Your task to perform on an android device: turn on data saver in the chrome app Image 0: 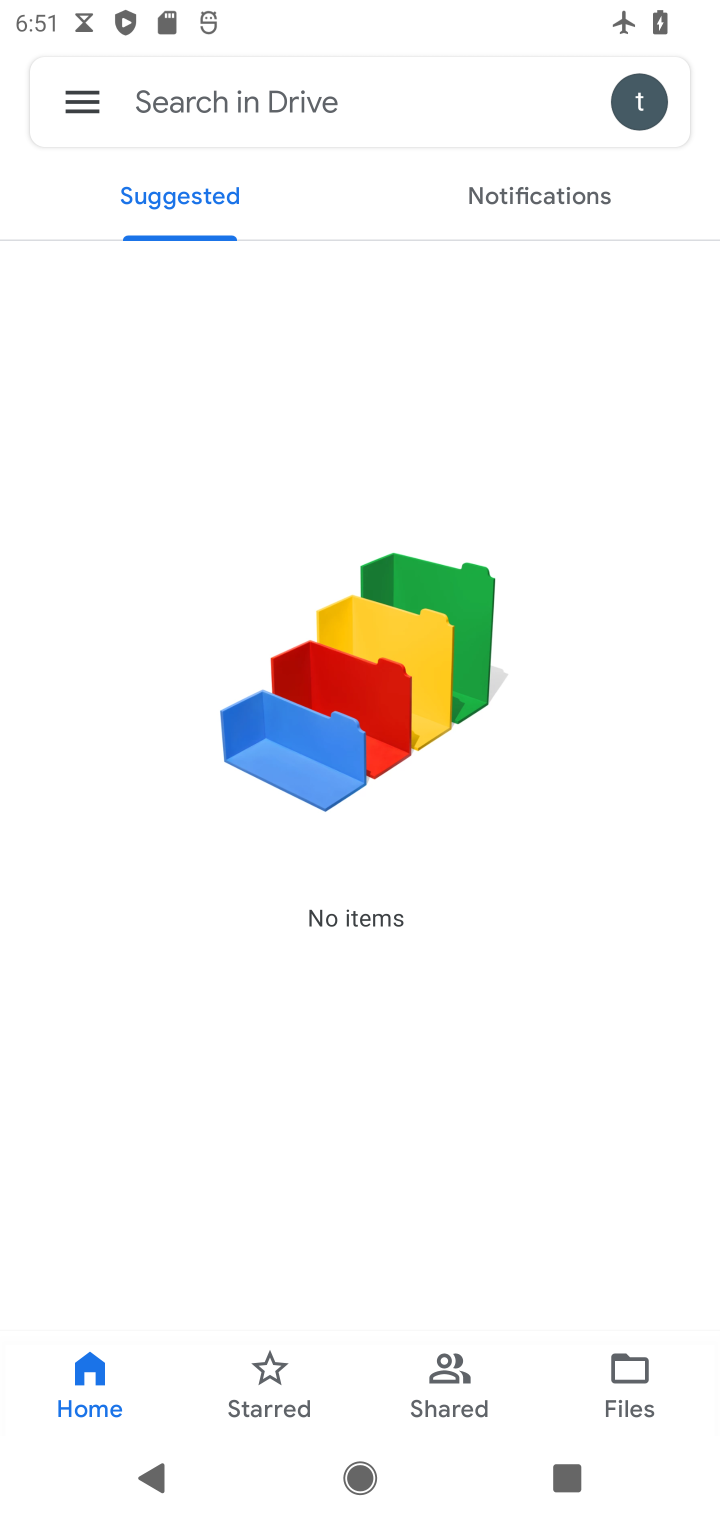
Step 0: press home button
Your task to perform on an android device: turn on data saver in the chrome app Image 1: 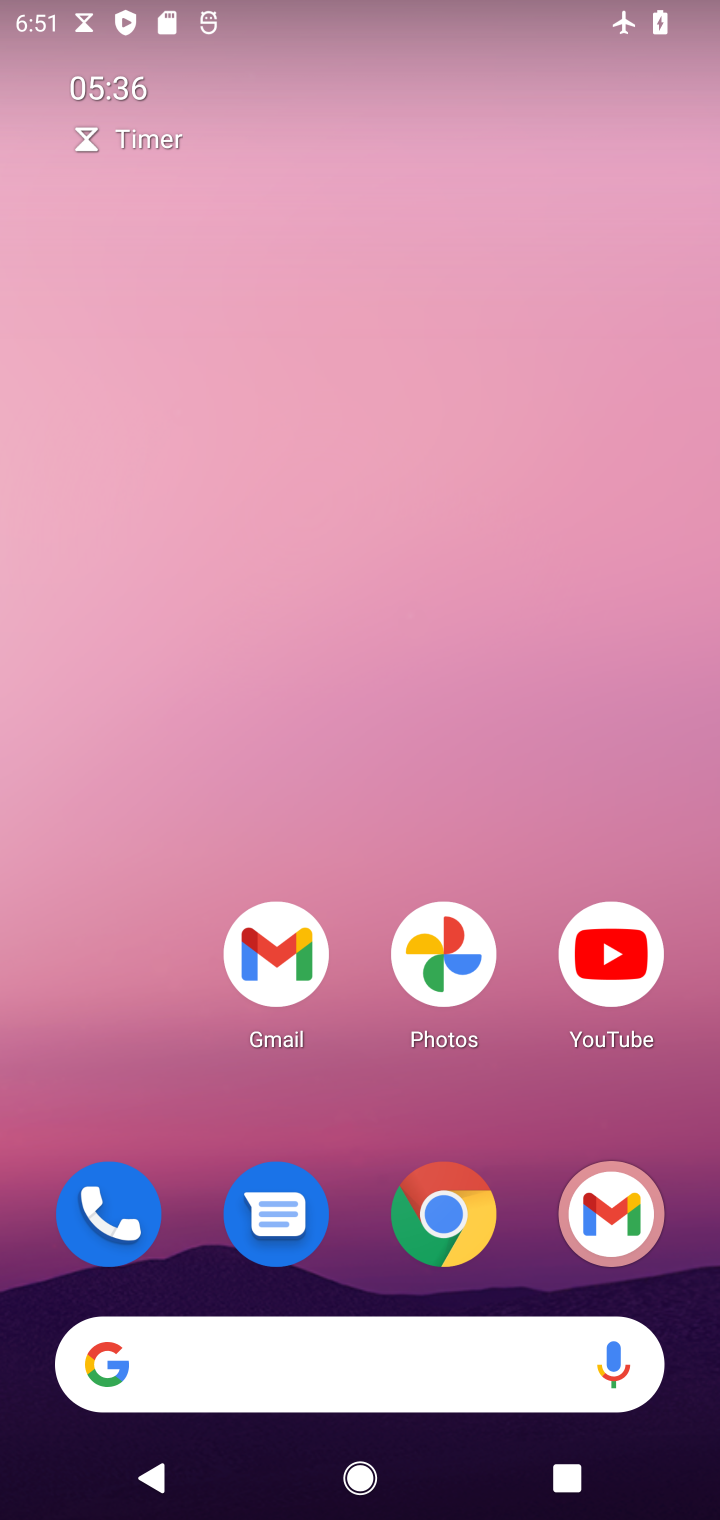
Step 1: click (440, 1198)
Your task to perform on an android device: turn on data saver in the chrome app Image 2: 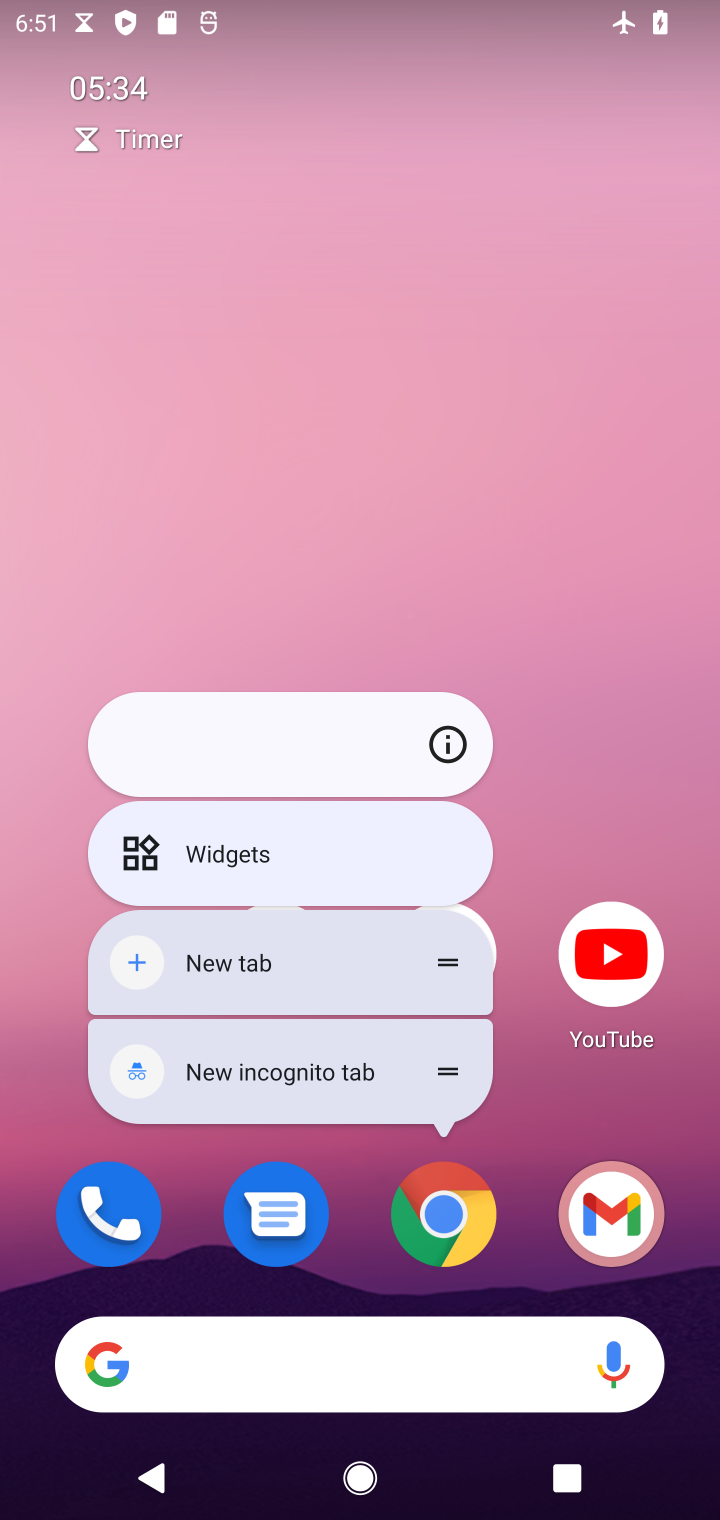
Step 2: click (431, 1206)
Your task to perform on an android device: turn on data saver in the chrome app Image 3: 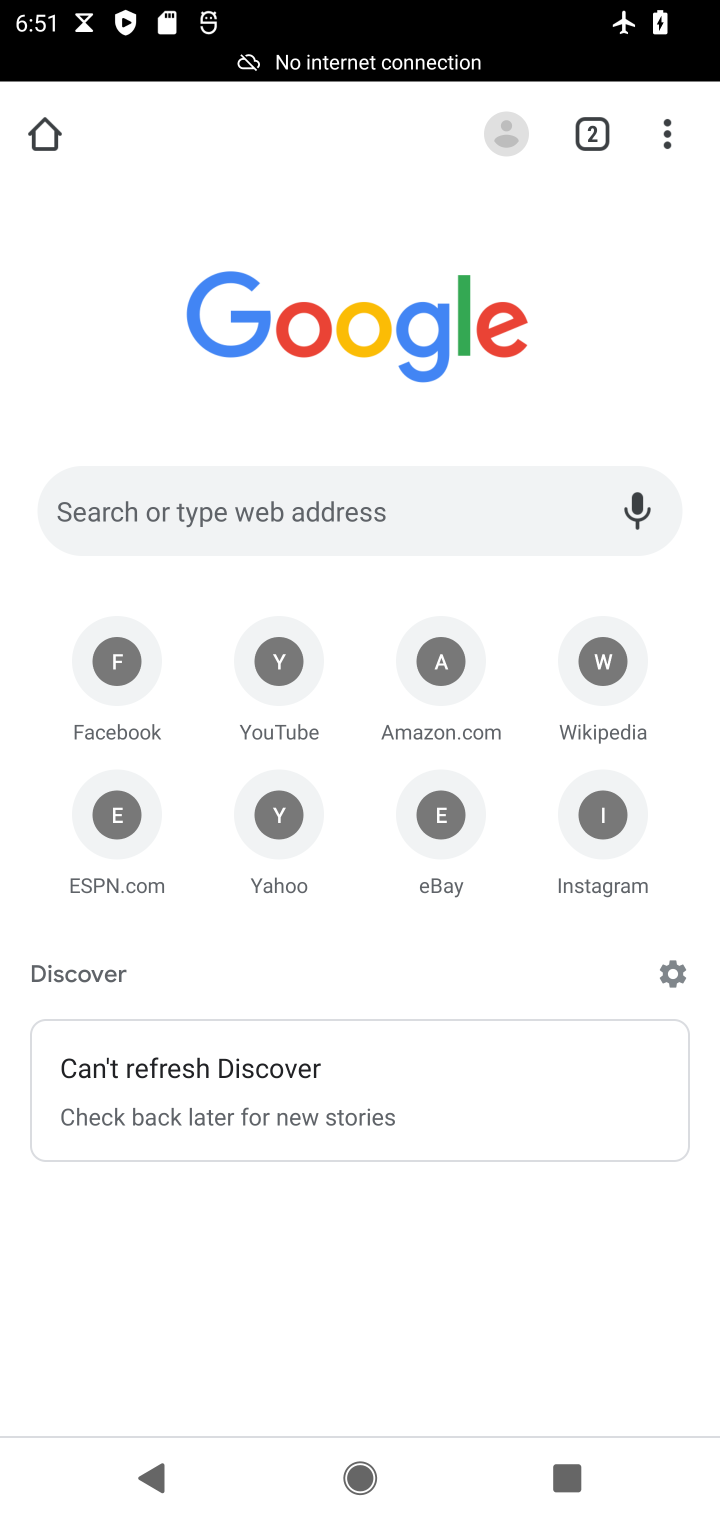
Step 3: click (651, 134)
Your task to perform on an android device: turn on data saver in the chrome app Image 4: 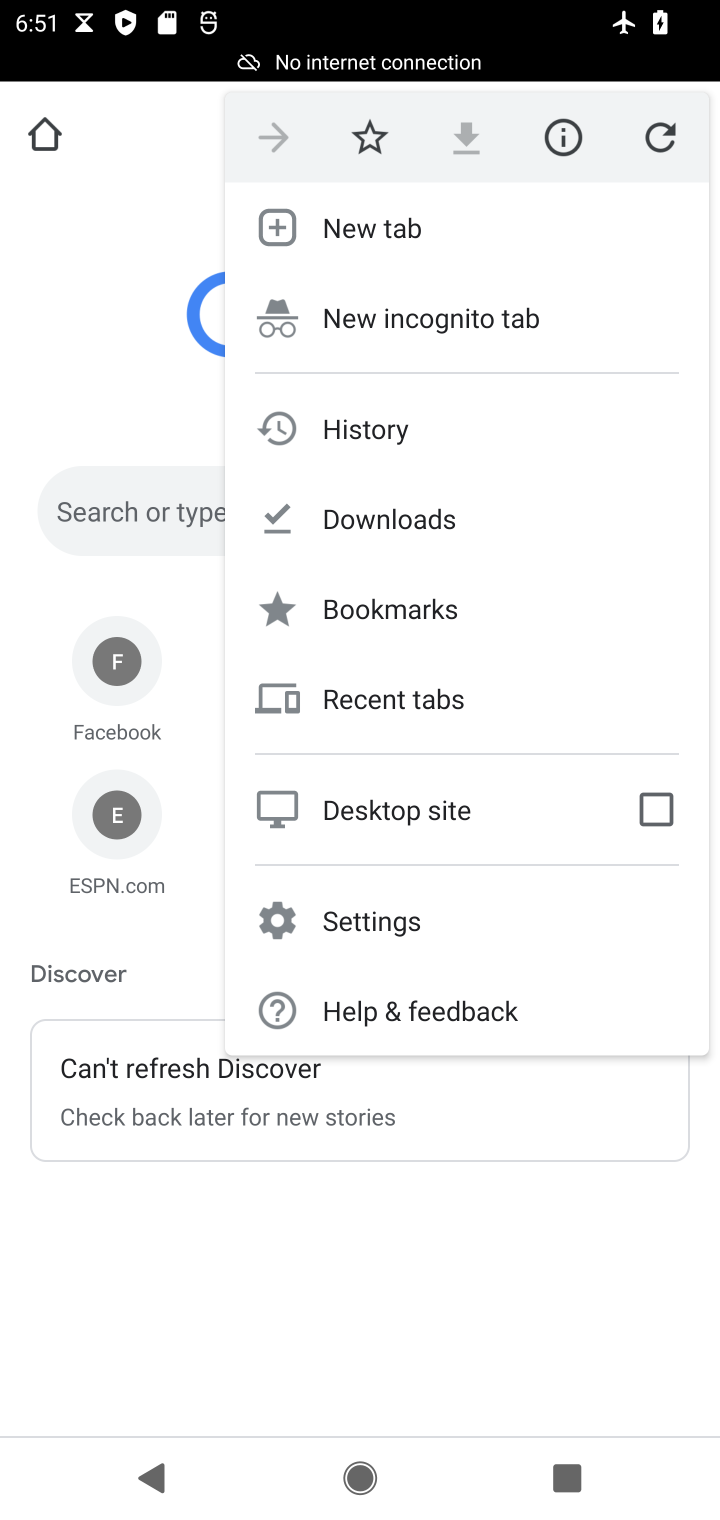
Step 4: click (406, 945)
Your task to perform on an android device: turn on data saver in the chrome app Image 5: 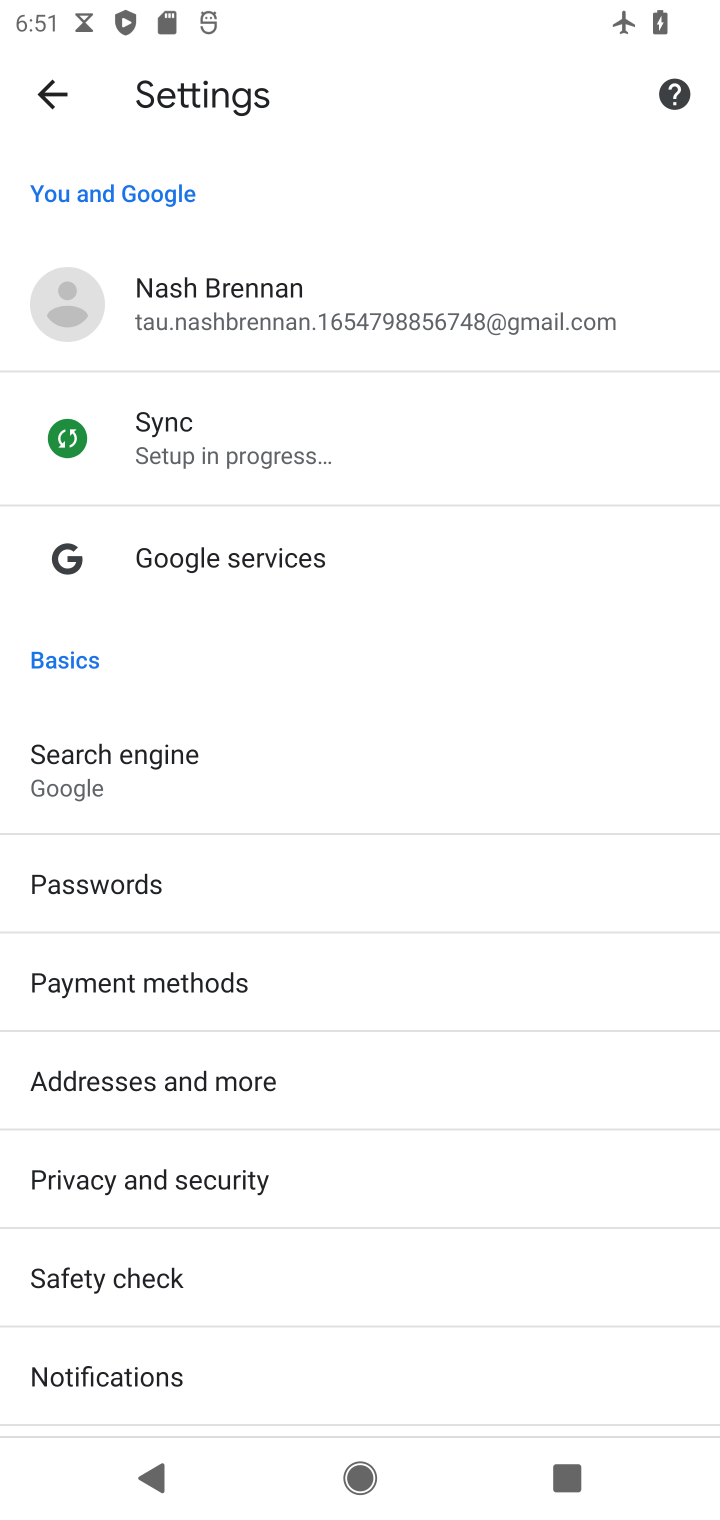
Step 5: drag from (262, 1234) to (291, 635)
Your task to perform on an android device: turn on data saver in the chrome app Image 6: 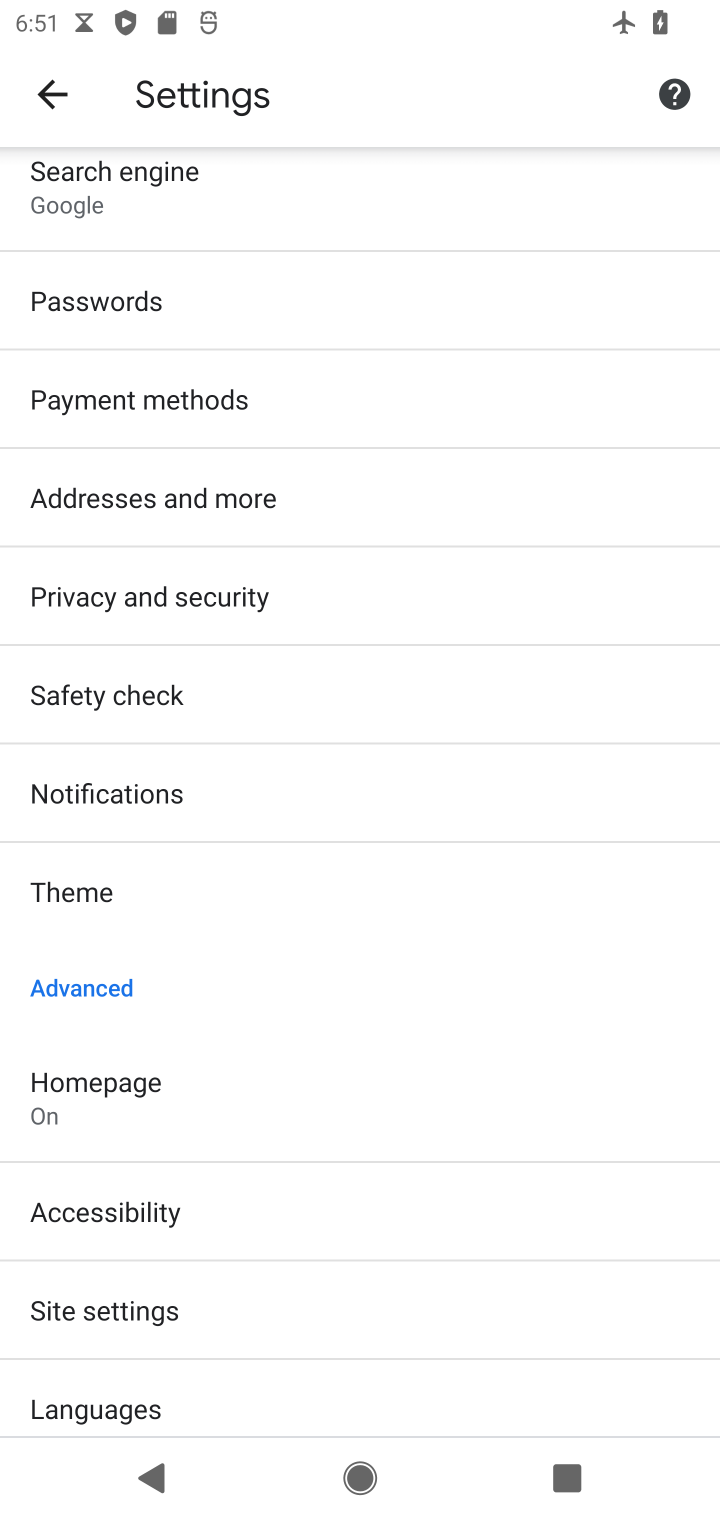
Step 6: drag from (167, 1229) to (242, 813)
Your task to perform on an android device: turn on data saver in the chrome app Image 7: 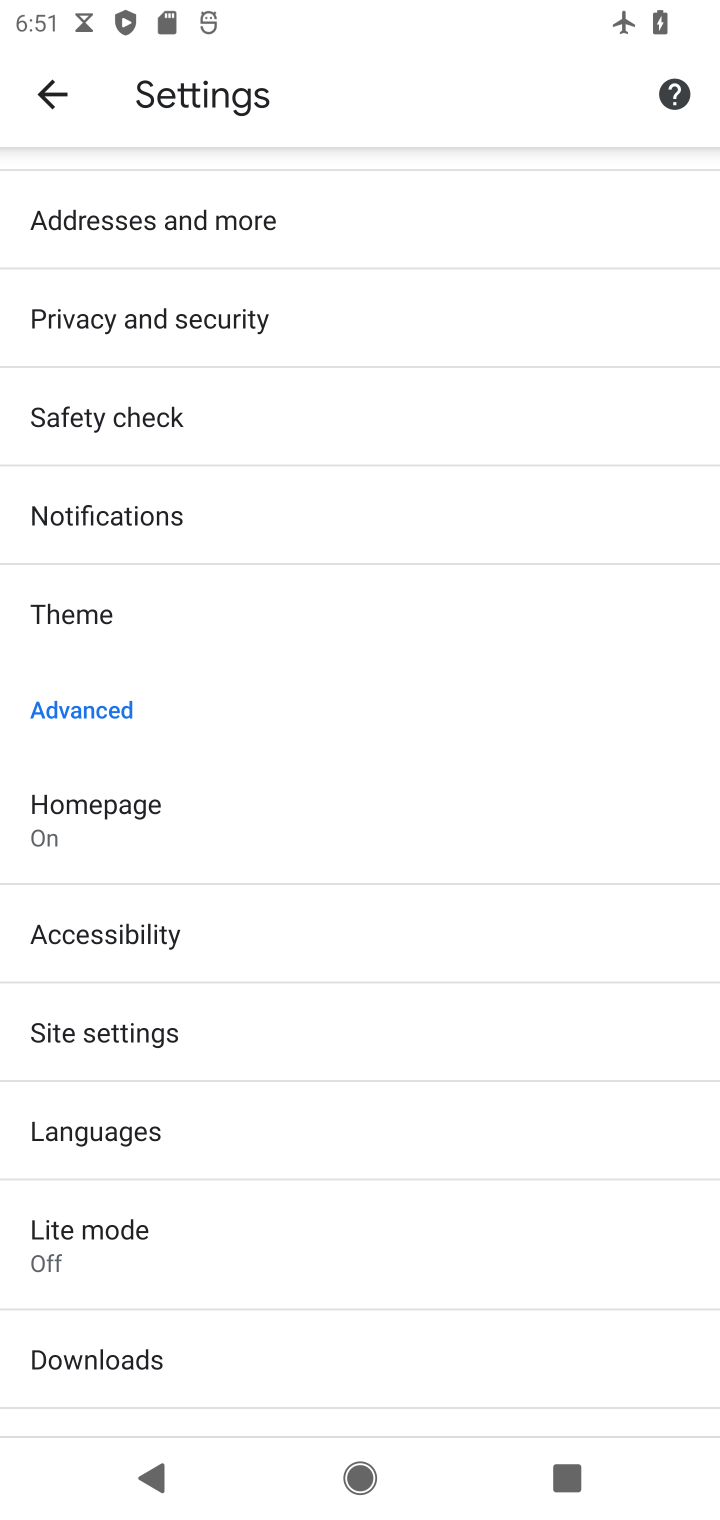
Step 7: click (129, 1243)
Your task to perform on an android device: turn on data saver in the chrome app Image 8: 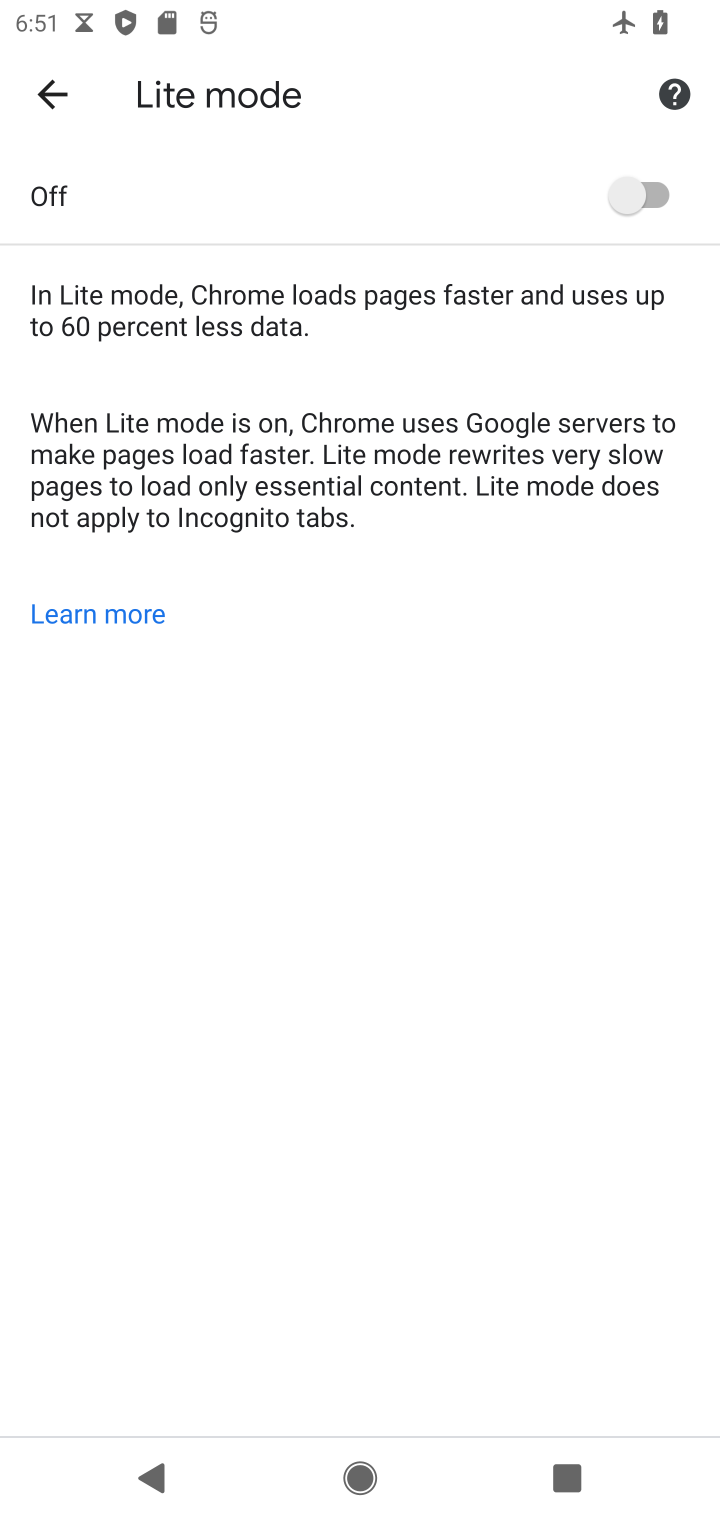
Step 8: click (680, 202)
Your task to perform on an android device: turn on data saver in the chrome app Image 9: 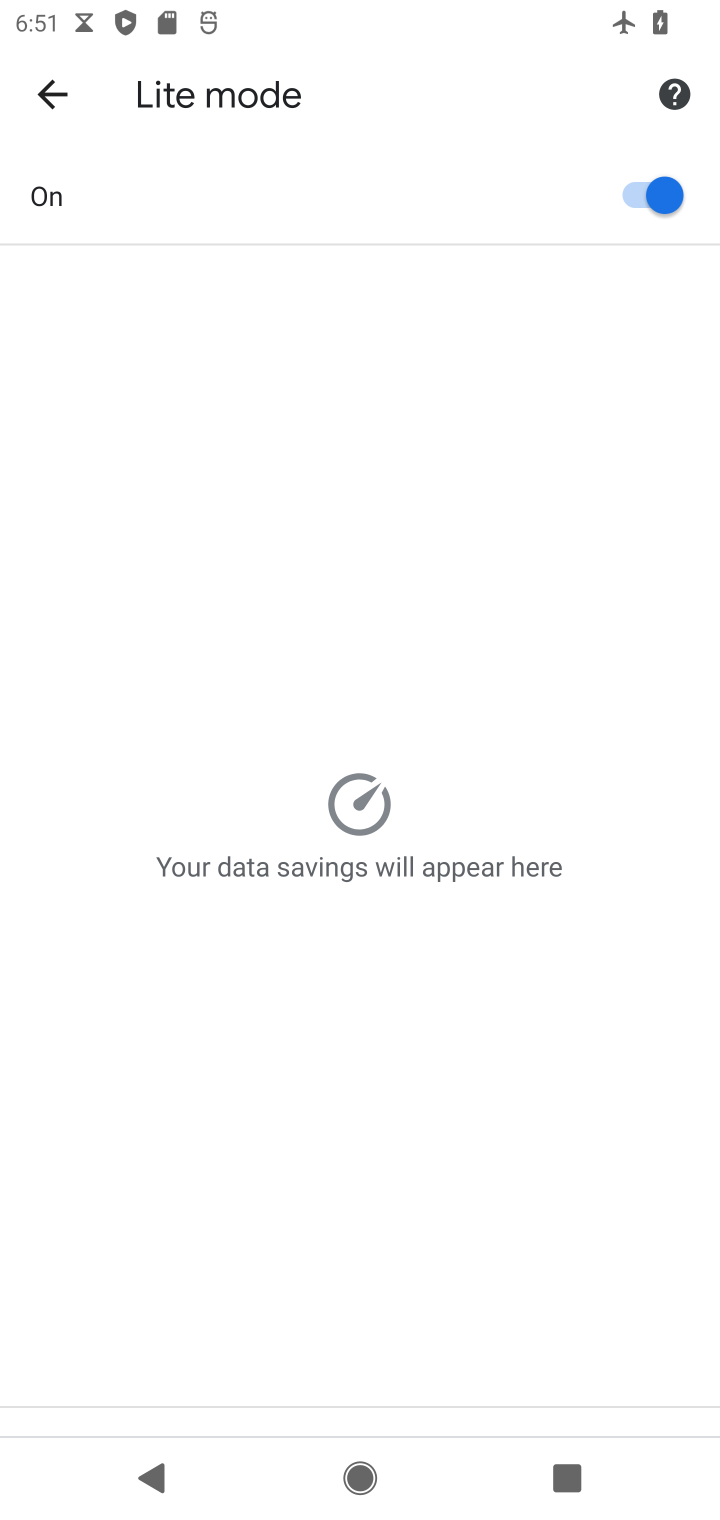
Step 9: task complete